Your task to perform on an android device: Is it going to rain tomorrow? Image 0: 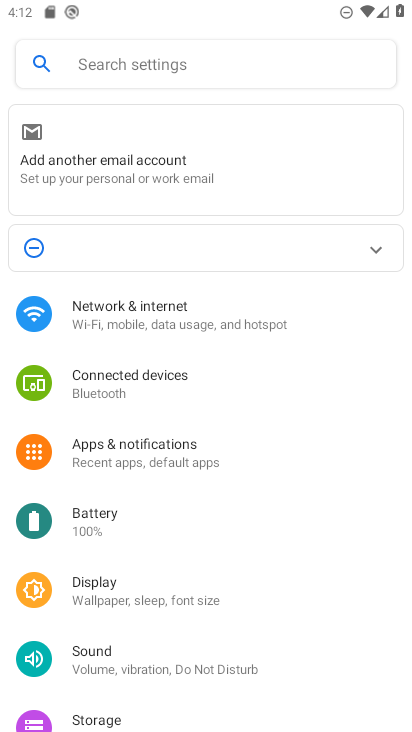
Step 0: press home button
Your task to perform on an android device: Is it going to rain tomorrow? Image 1: 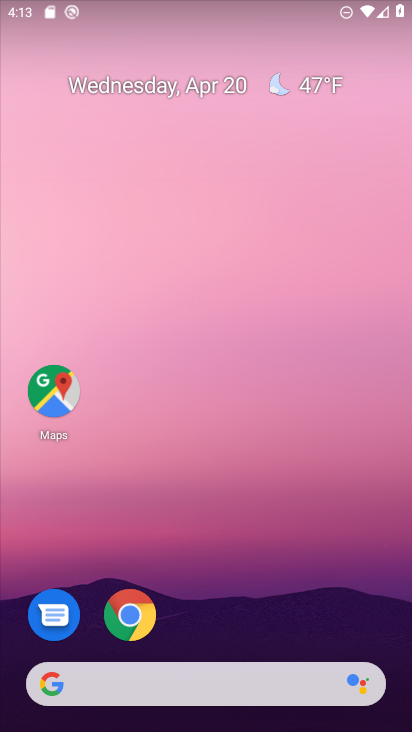
Step 1: drag from (194, 528) to (155, 105)
Your task to perform on an android device: Is it going to rain tomorrow? Image 2: 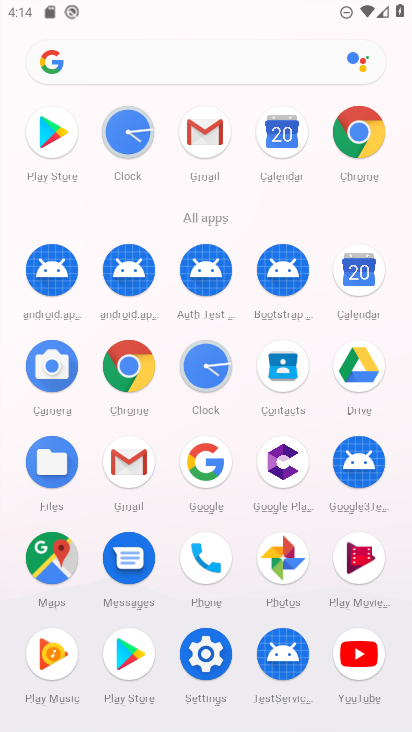
Step 2: click (205, 466)
Your task to perform on an android device: Is it going to rain tomorrow? Image 3: 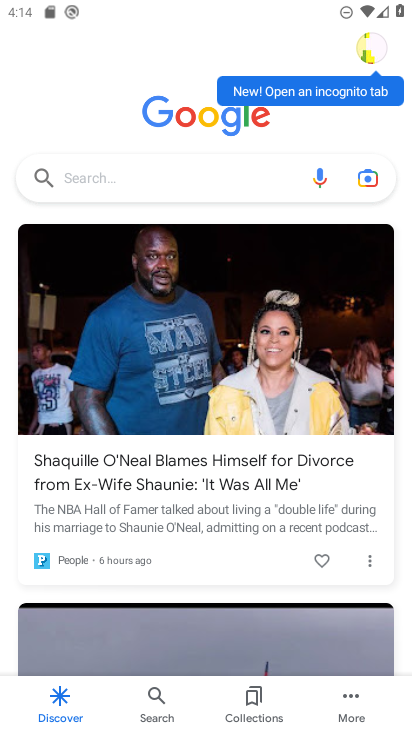
Step 3: click (215, 173)
Your task to perform on an android device: Is it going to rain tomorrow? Image 4: 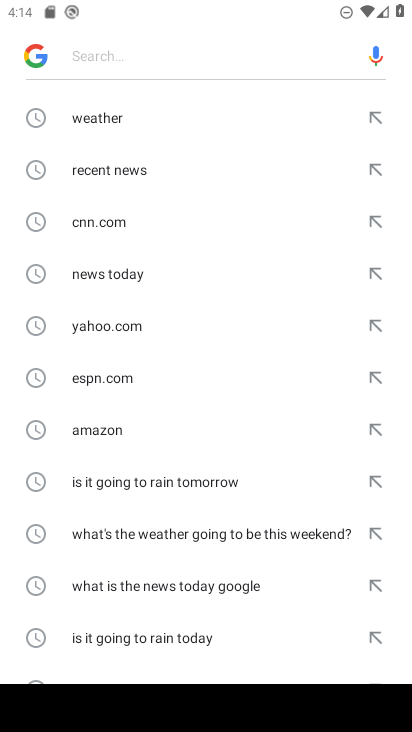
Step 4: click (129, 123)
Your task to perform on an android device: Is it going to rain tomorrow? Image 5: 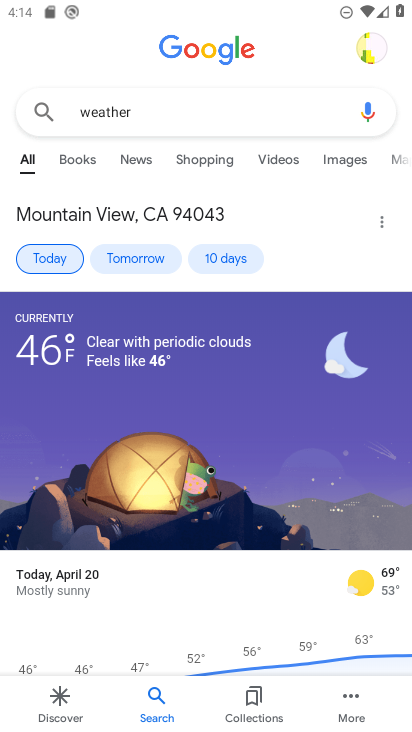
Step 5: task complete